Your task to perform on an android device: change keyboard looks Image 0: 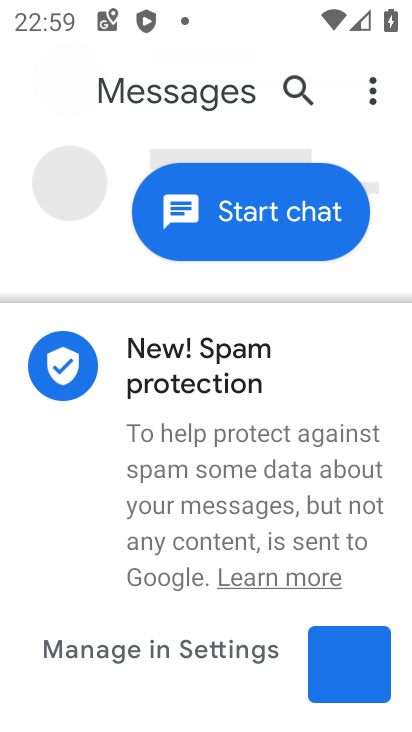
Step 0: press home button
Your task to perform on an android device: change keyboard looks Image 1: 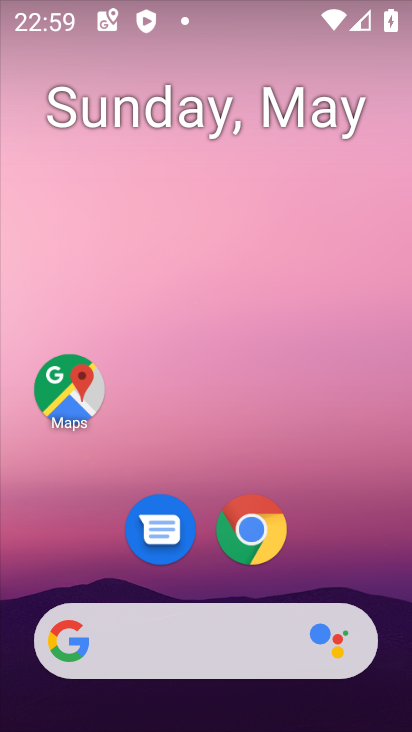
Step 1: drag from (396, 570) to (288, 70)
Your task to perform on an android device: change keyboard looks Image 2: 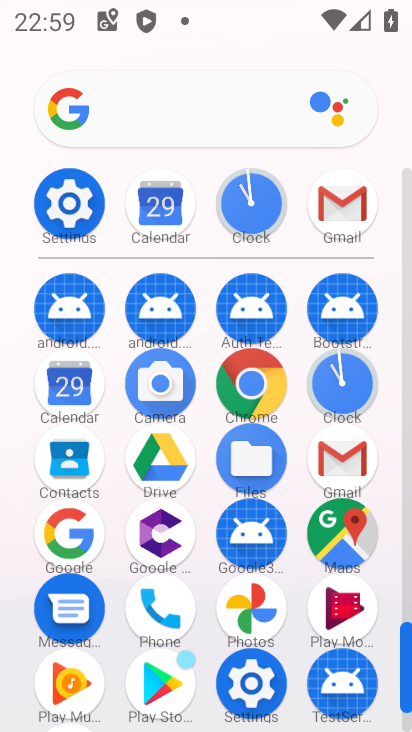
Step 2: click (65, 221)
Your task to perform on an android device: change keyboard looks Image 3: 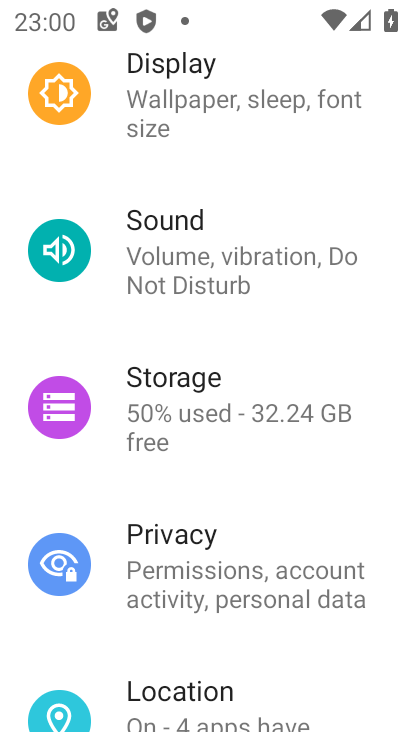
Step 3: drag from (256, 639) to (230, 402)
Your task to perform on an android device: change keyboard looks Image 4: 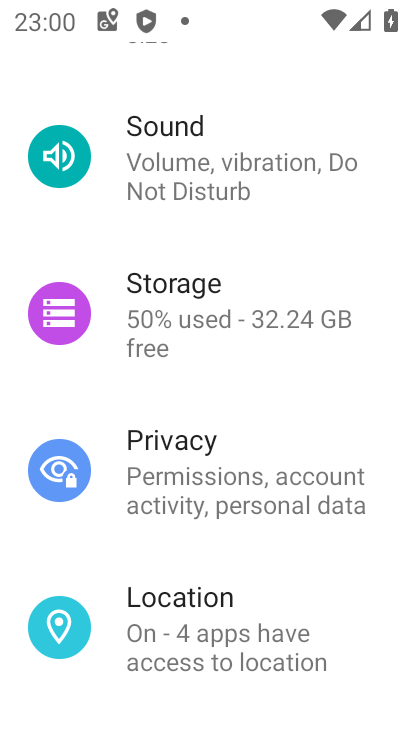
Step 4: drag from (271, 686) to (233, 29)
Your task to perform on an android device: change keyboard looks Image 5: 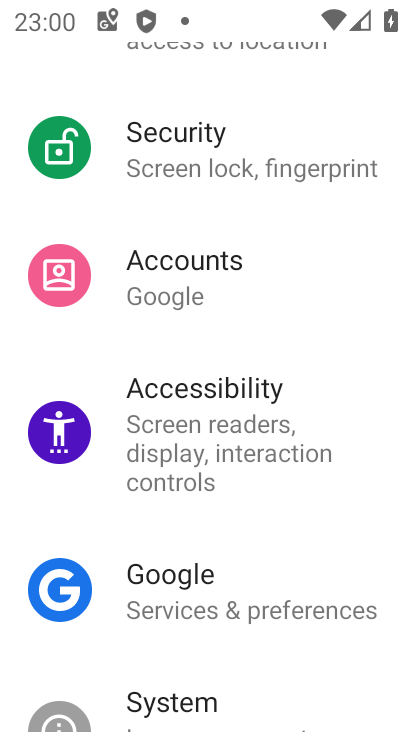
Step 5: drag from (273, 663) to (249, 188)
Your task to perform on an android device: change keyboard looks Image 6: 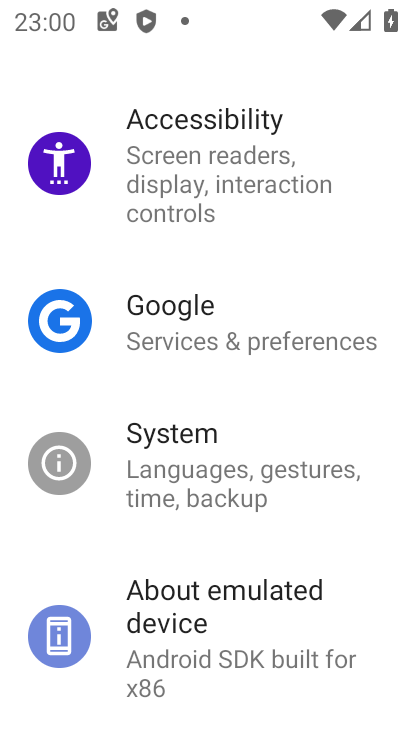
Step 6: click (280, 673)
Your task to perform on an android device: change keyboard looks Image 7: 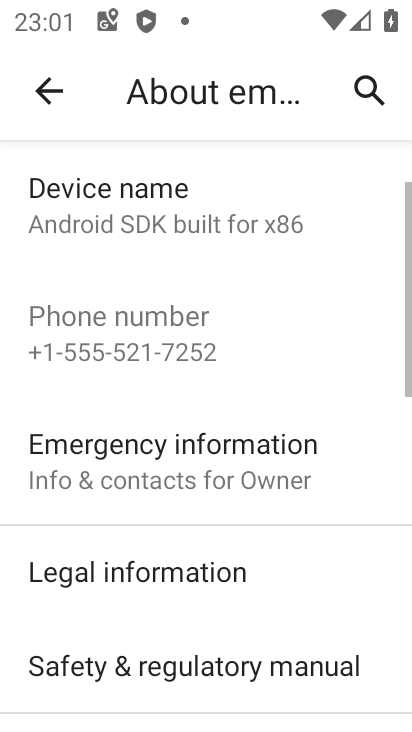
Step 7: task complete